Your task to perform on an android device: Play the last video I watched on Youtube Image 0: 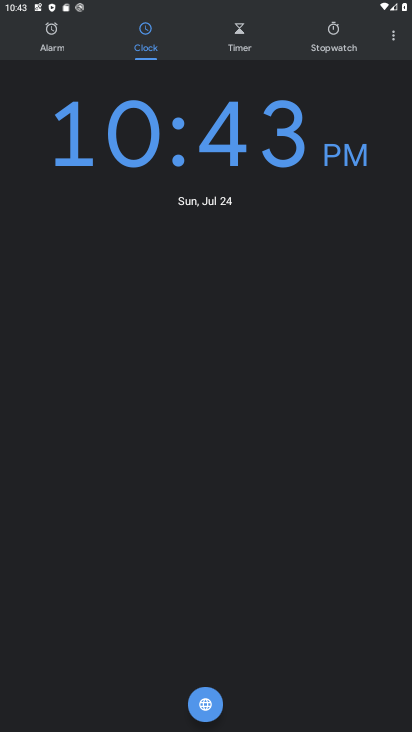
Step 0: press home button
Your task to perform on an android device: Play the last video I watched on Youtube Image 1: 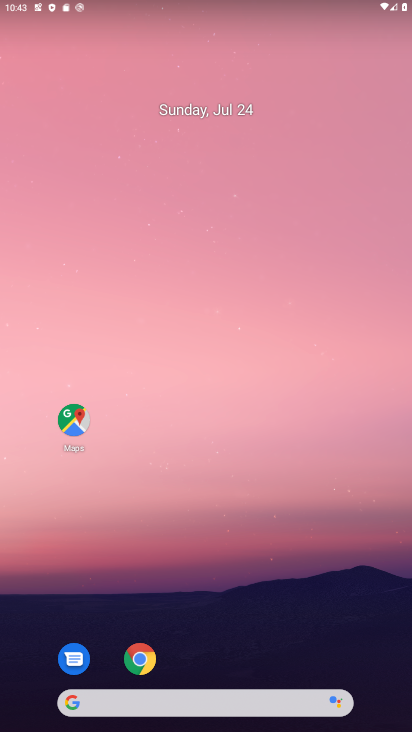
Step 1: drag from (183, 699) to (324, 67)
Your task to perform on an android device: Play the last video I watched on Youtube Image 2: 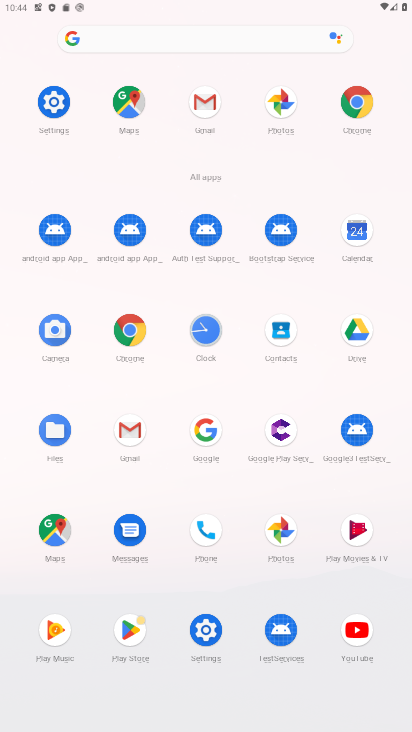
Step 2: click (357, 629)
Your task to perform on an android device: Play the last video I watched on Youtube Image 3: 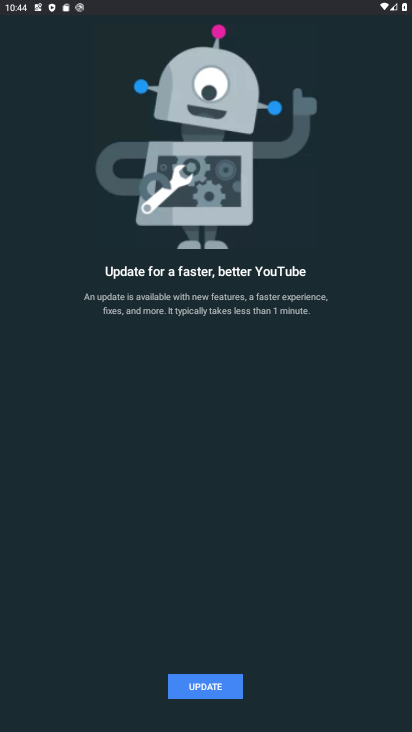
Step 3: click (205, 686)
Your task to perform on an android device: Play the last video I watched on Youtube Image 4: 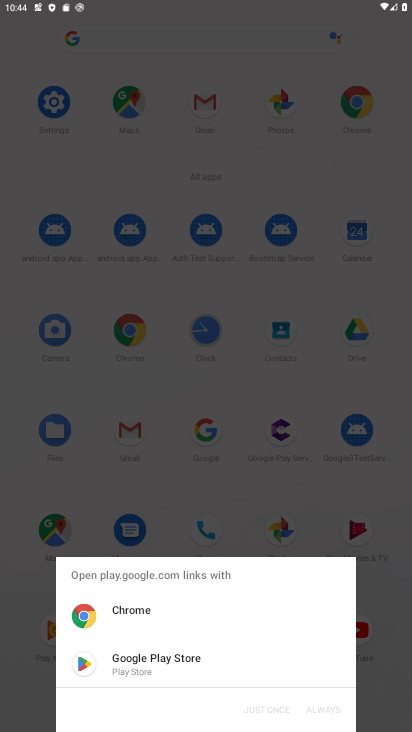
Step 4: click (151, 629)
Your task to perform on an android device: Play the last video I watched on Youtube Image 5: 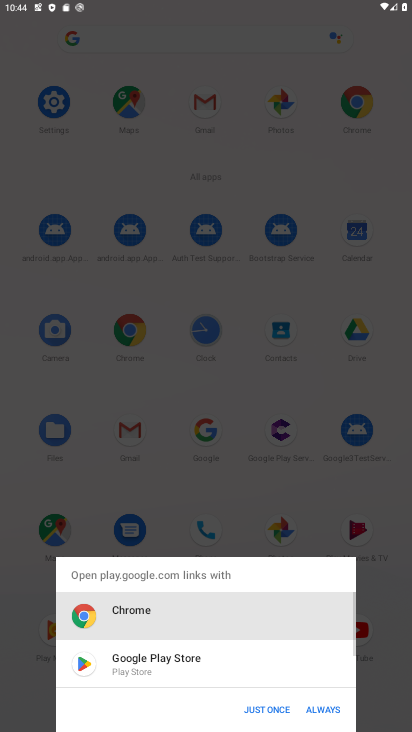
Step 5: click (146, 657)
Your task to perform on an android device: Play the last video I watched on Youtube Image 6: 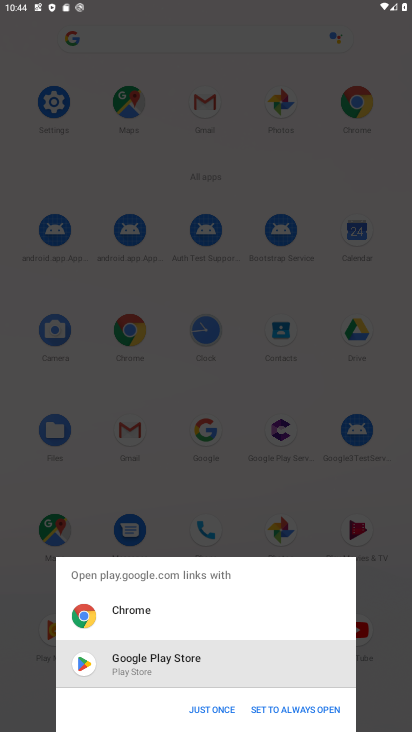
Step 6: click (207, 707)
Your task to perform on an android device: Play the last video I watched on Youtube Image 7: 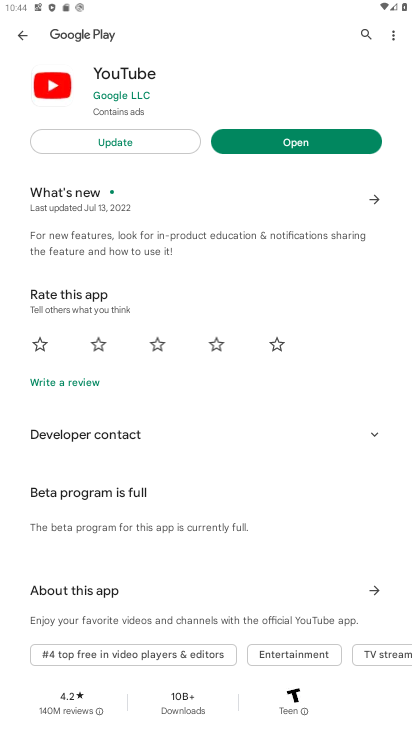
Step 7: click (113, 141)
Your task to perform on an android device: Play the last video I watched on Youtube Image 8: 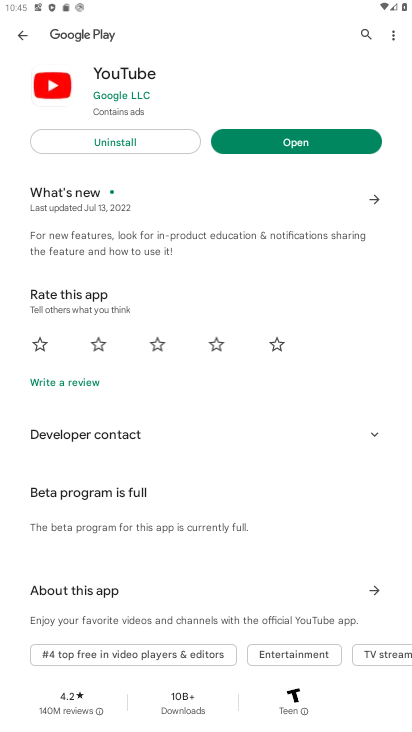
Step 8: click (293, 138)
Your task to perform on an android device: Play the last video I watched on Youtube Image 9: 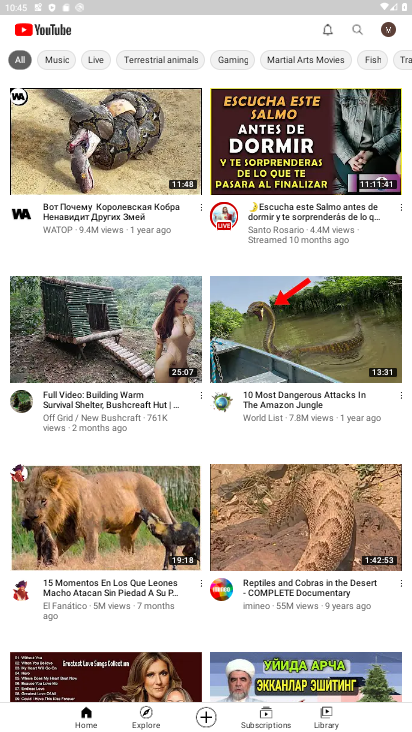
Step 9: click (325, 708)
Your task to perform on an android device: Play the last video I watched on Youtube Image 10: 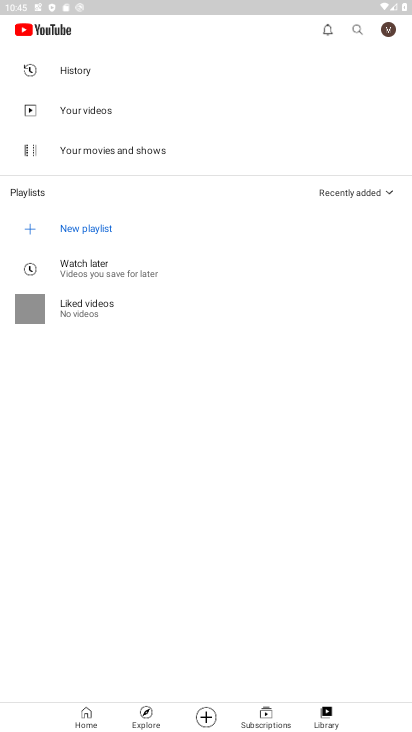
Step 10: click (79, 72)
Your task to perform on an android device: Play the last video I watched on Youtube Image 11: 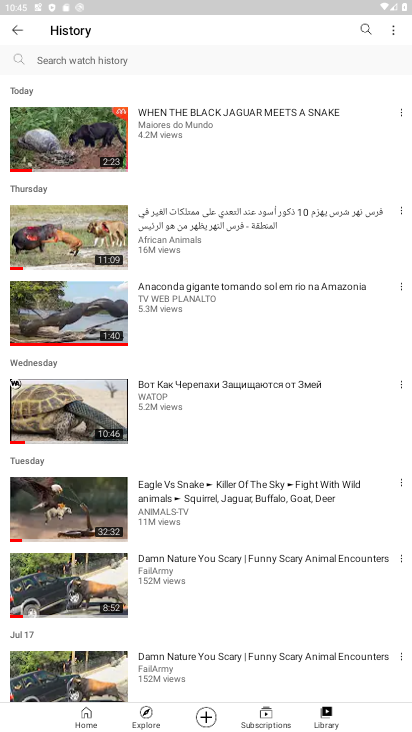
Step 11: click (164, 111)
Your task to perform on an android device: Play the last video I watched on Youtube Image 12: 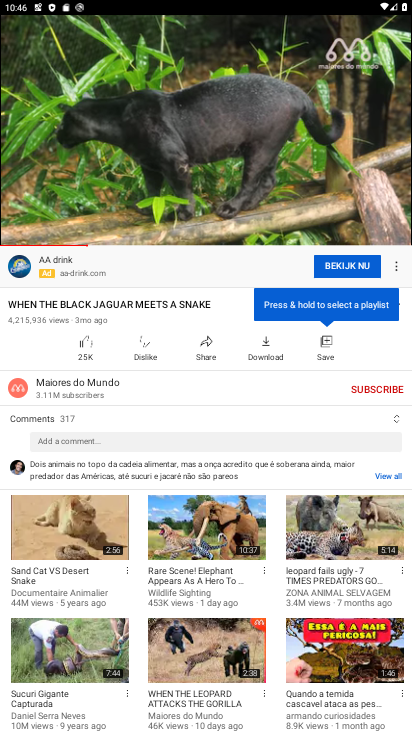
Step 12: click (223, 142)
Your task to perform on an android device: Play the last video I watched on Youtube Image 13: 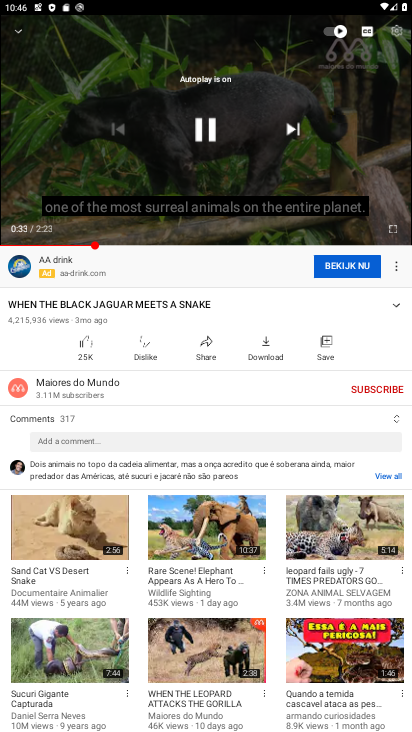
Step 13: click (217, 130)
Your task to perform on an android device: Play the last video I watched on Youtube Image 14: 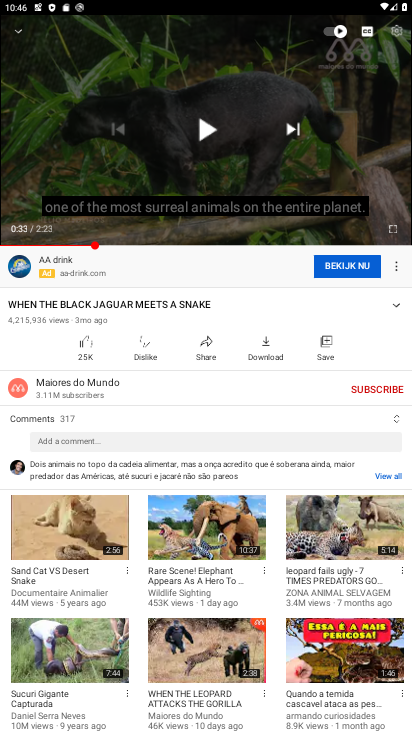
Step 14: task complete